Your task to perform on an android device: turn notification dots on Image 0: 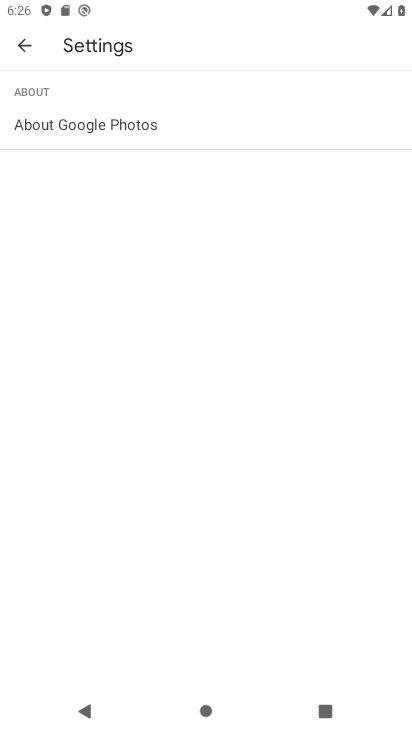
Step 0: press home button
Your task to perform on an android device: turn notification dots on Image 1: 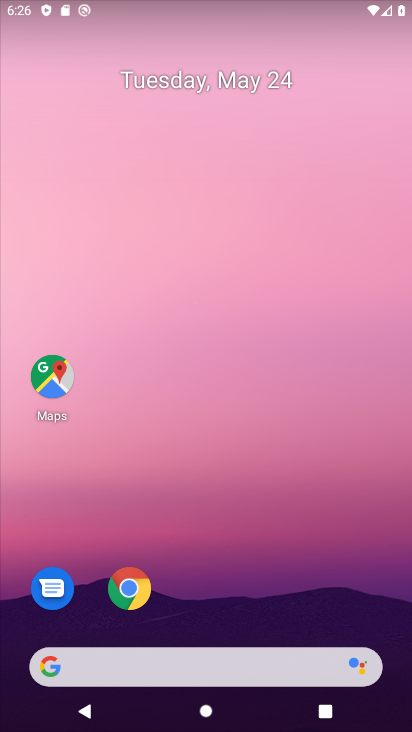
Step 1: drag from (339, 656) to (366, 16)
Your task to perform on an android device: turn notification dots on Image 2: 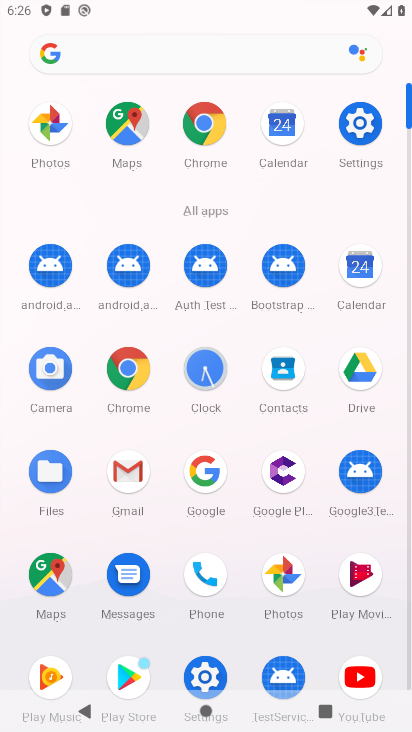
Step 2: click (355, 117)
Your task to perform on an android device: turn notification dots on Image 3: 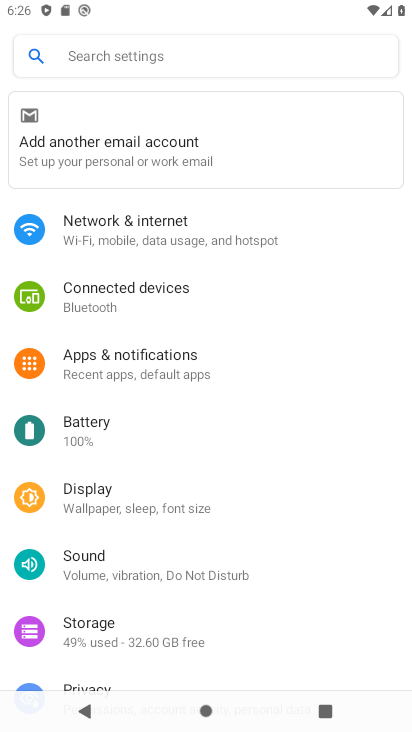
Step 3: click (75, 350)
Your task to perform on an android device: turn notification dots on Image 4: 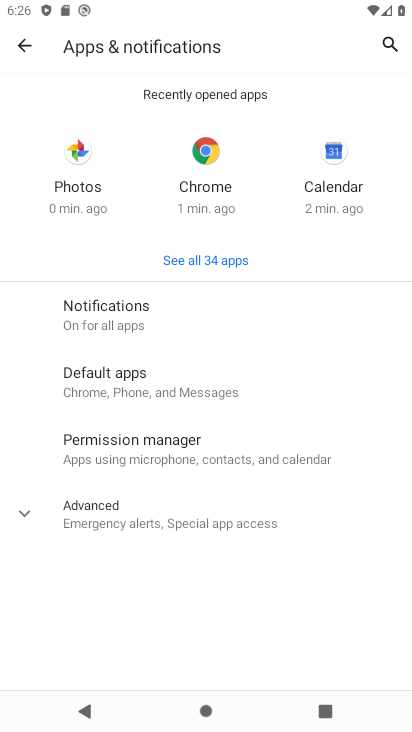
Step 4: click (72, 312)
Your task to perform on an android device: turn notification dots on Image 5: 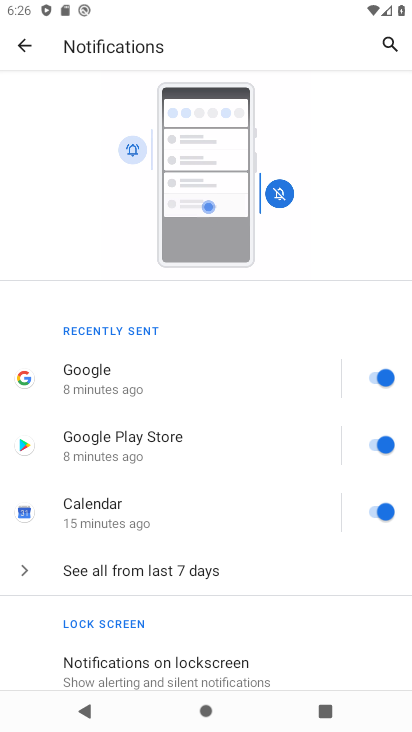
Step 5: drag from (144, 607) to (270, 188)
Your task to perform on an android device: turn notification dots on Image 6: 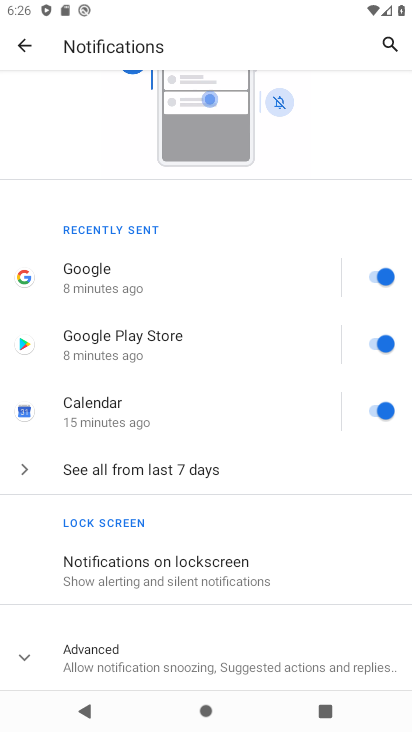
Step 6: click (149, 582)
Your task to perform on an android device: turn notification dots on Image 7: 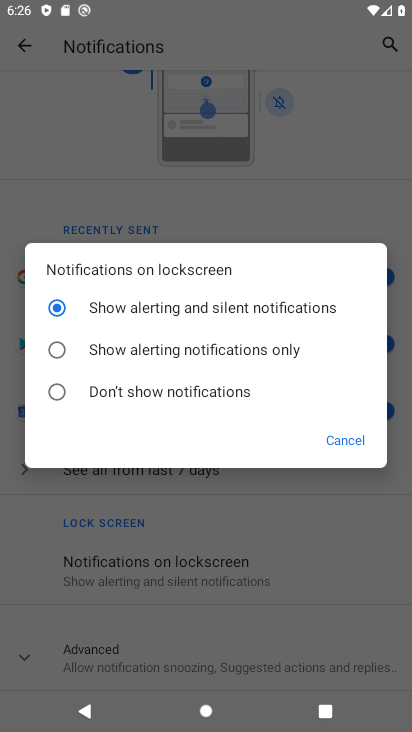
Step 7: click (330, 436)
Your task to perform on an android device: turn notification dots on Image 8: 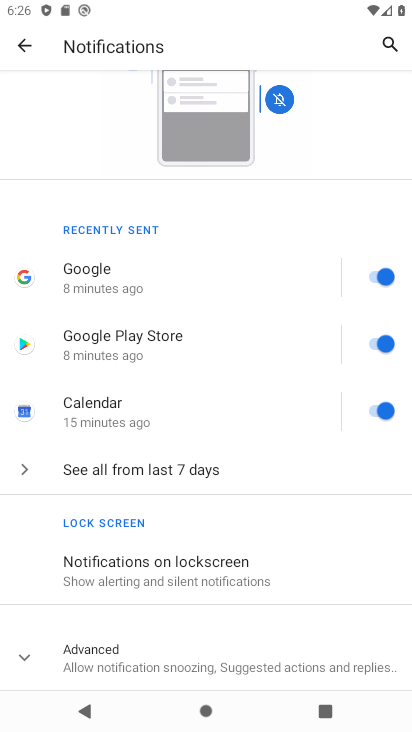
Step 8: click (189, 666)
Your task to perform on an android device: turn notification dots on Image 9: 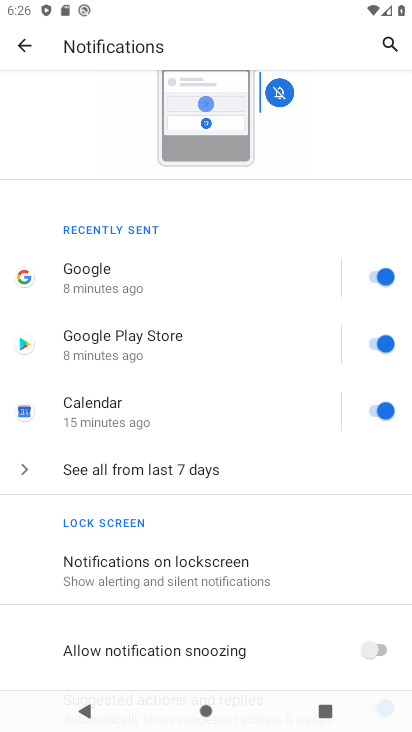
Step 9: task complete